Your task to perform on an android device: Go to notification settings Image 0: 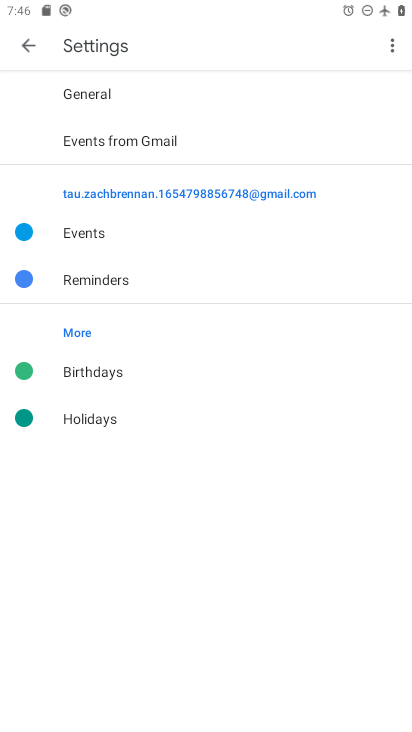
Step 0: press home button
Your task to perform on an android device: Go to notification settings Image 1: 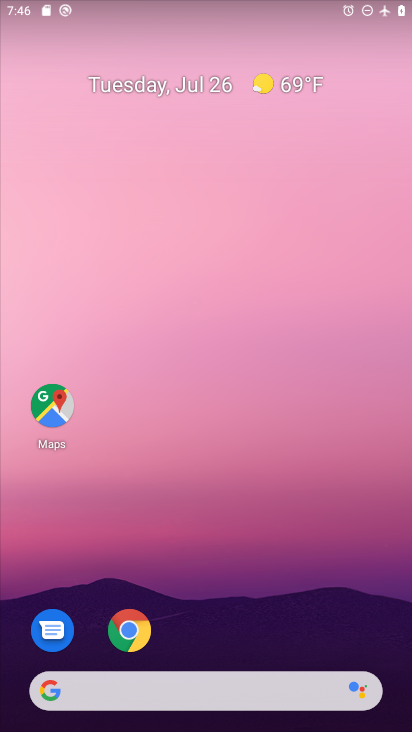
Step 1: drag from (239, 624) to (211, 102)
Your task to perform on an android device: Go to notification settings Image 2: 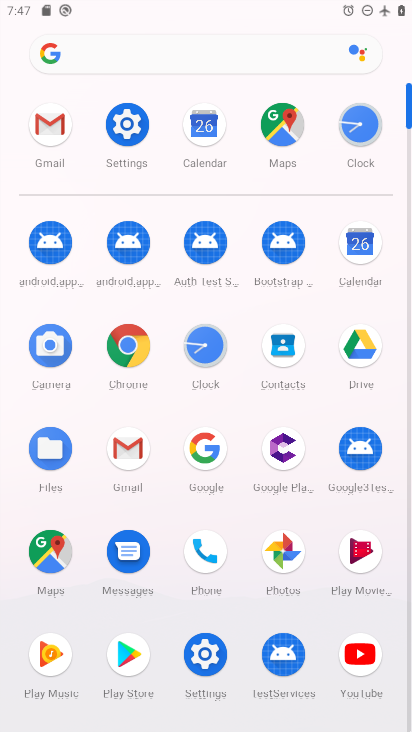
Step 2: click (217, 661)
Your task to perform on an android device: Go to notification settings Image 3: 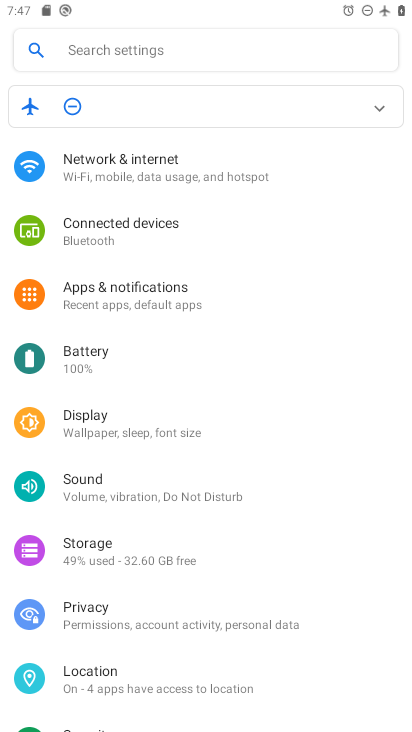
Step 3: click (222, 296)
Your task to perform on an android device: Go to notification settings Image 4: 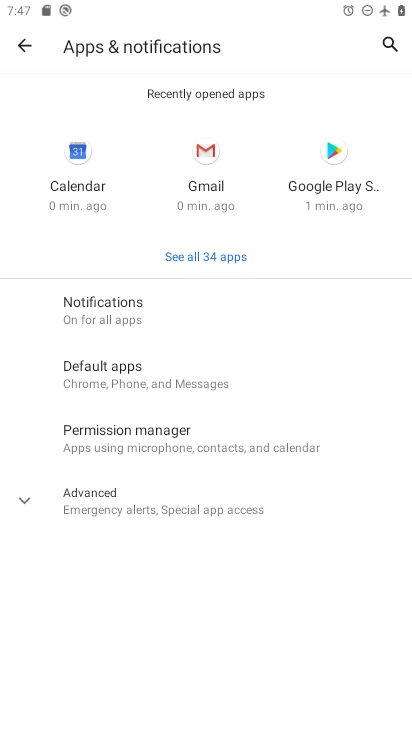
Step 4: click (191, 305)
Your task to perform on an android device: Go to notification settings Image 5: 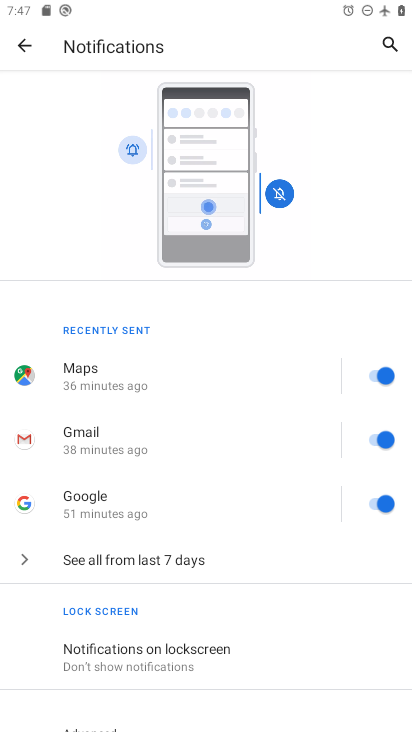
Step 5: drag from (278, 645) to (281, 390)
Your task to perform on an android device: Go to notification settings Image 6: 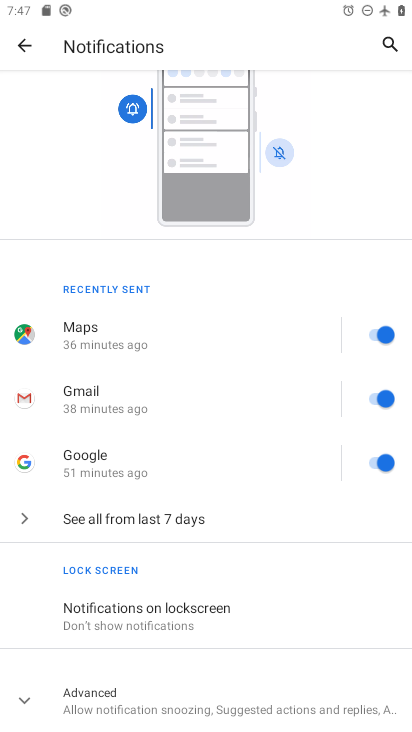
Step 6: click (190, 619)
Your task to perform on an android device: Go to notification settings Image 7: 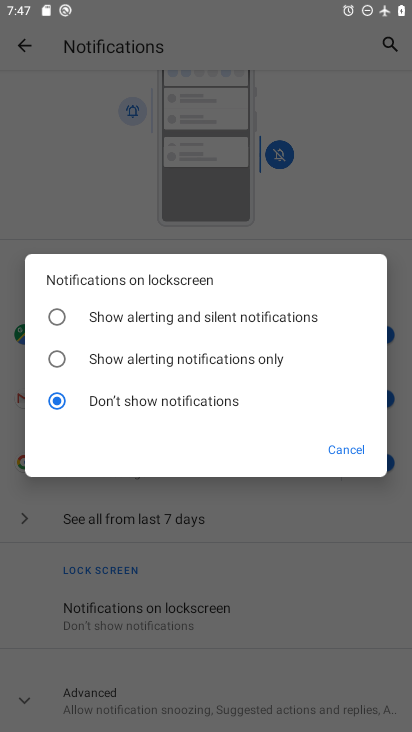
Step 7: task complete